Your task to perform on an android device: Check the weather Image 0: 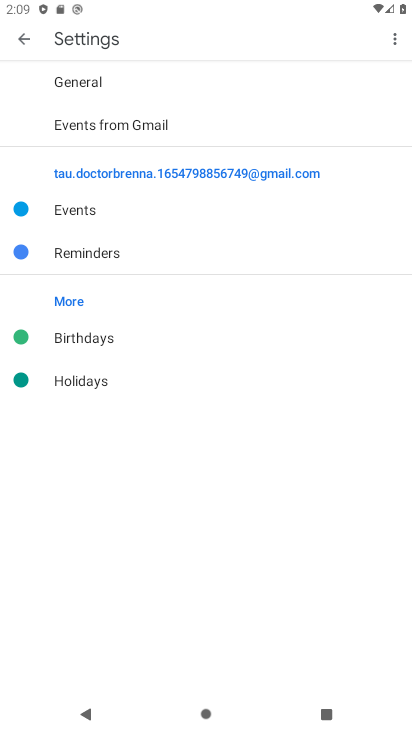
Step 0: press home button
Your task to perform on an android device: Check the weather Image 1: 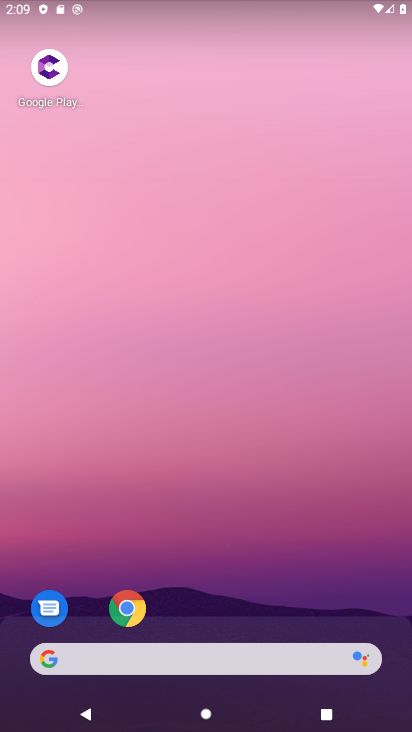
Step 1: drag from (70, 249) to (409, 270)
Your task to perform on an android device: Check the weather Image 2: 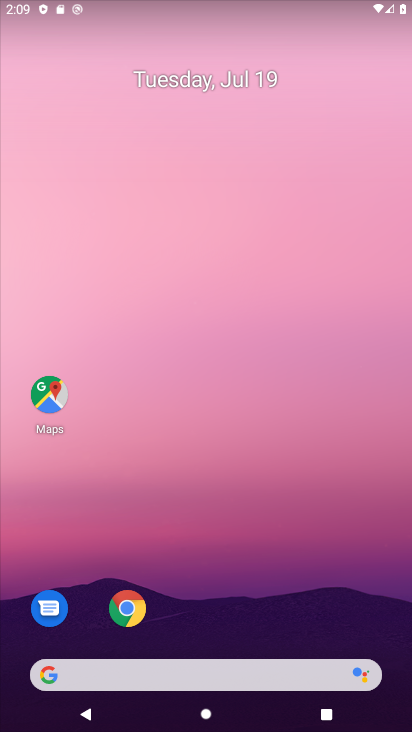
Step 2: drag from (11, 261) to (393, 380)
Your task to perform on an android device: Check the weather Image 3: 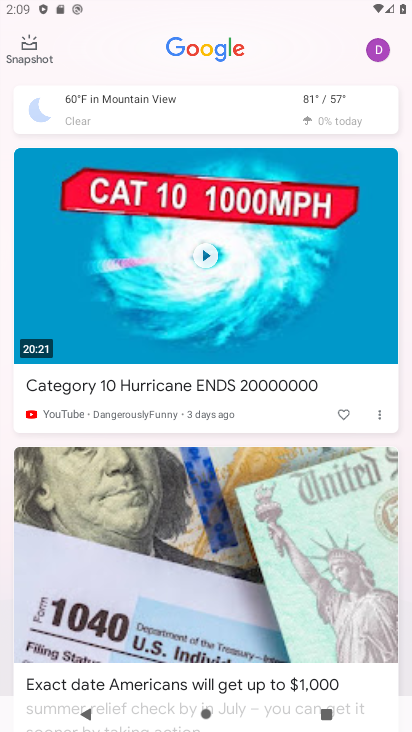
Step 3: click (307, 128)
Your task to perform on an android device: Check the weather Image 4: 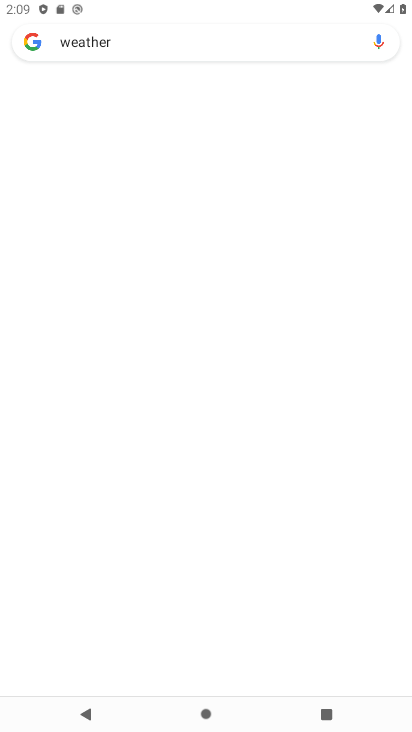
Step 4: click (314, 112)
Your task to perform on an android device: Check the weather Image 5: 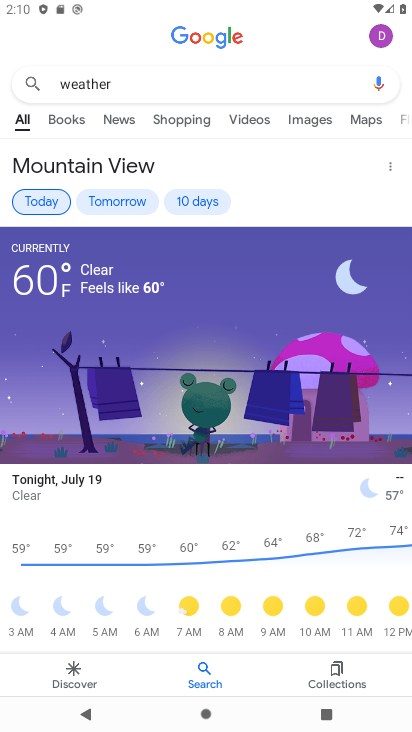
Step 5: task complete